Your task to perform on an android device: Do I have any events tomorrow? Image 0: 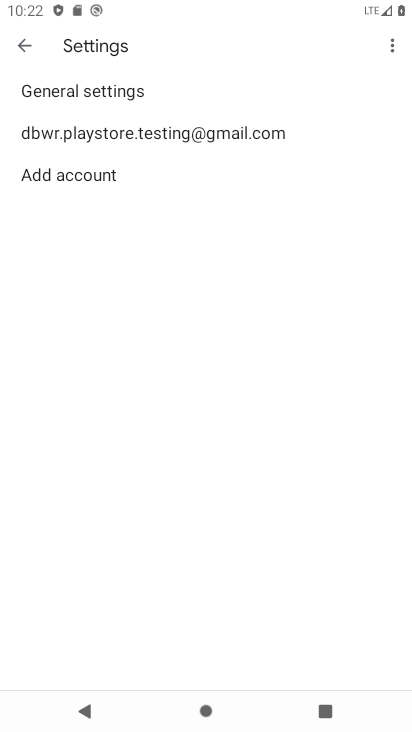
Step 0: press home button
Your task to perform on an android device: Do I have any events tomorrow? Image 1: 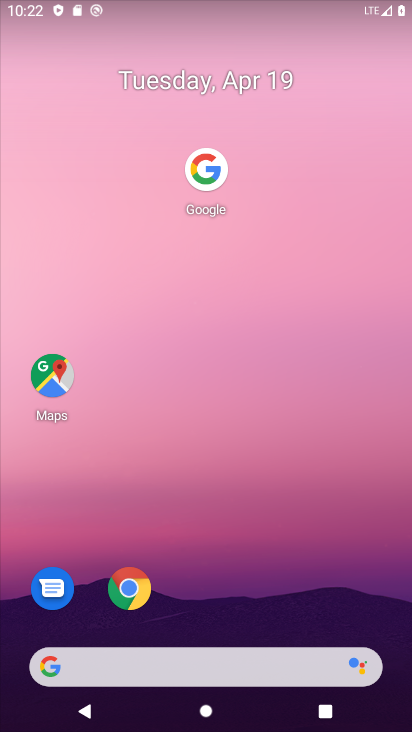
Step 1: drag from (243, 584) to (368, 0)
Your task to perform on an android device: Do I have any events tomorrow? Image 2: 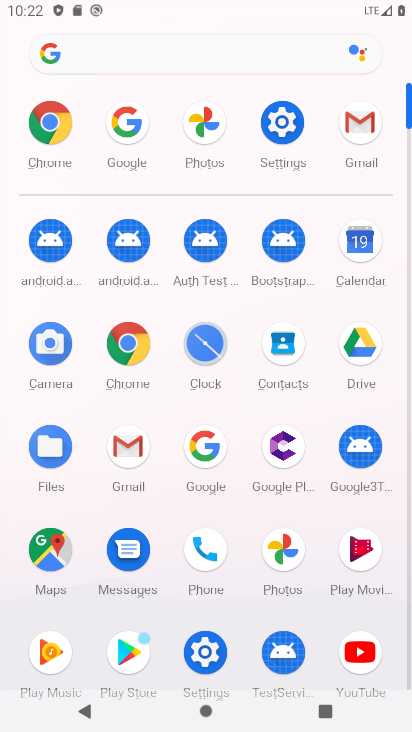
Step 2: click (360, 248)
Your task to perform on an android device: Do I have any events tomorrow? Image 3: 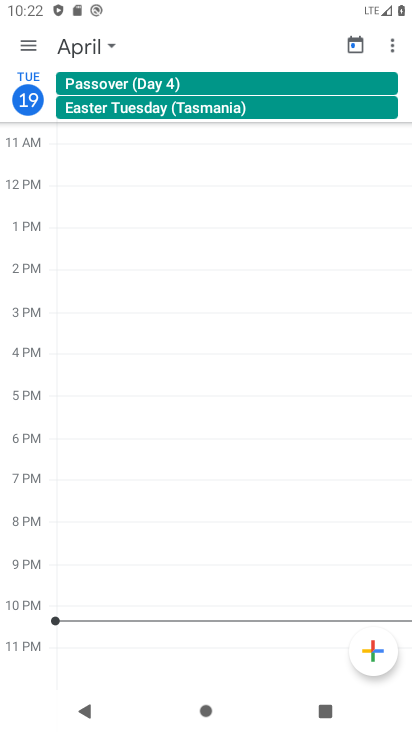
Step 3: click (107, 44)
Your task to perform on an android device: Do I have any events tomorrow? Image 4: 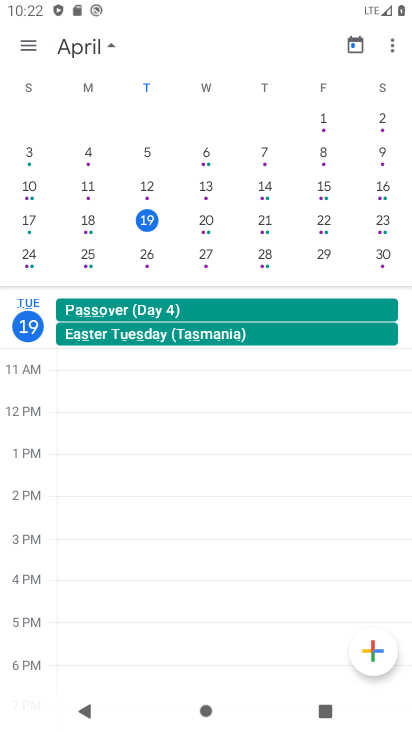
Step 4: click (208, 221)
Your task to perform on an android device: Do I have any events tomorrow? Image 5: 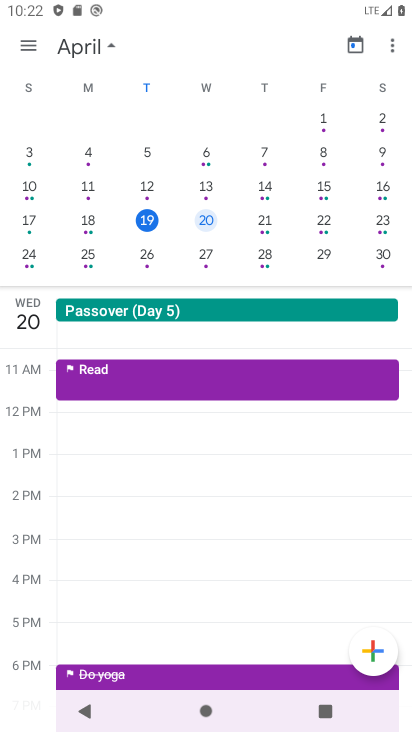
Step 5: task complete